Your task to perform on an android device: Go to privacy settings Image 0: 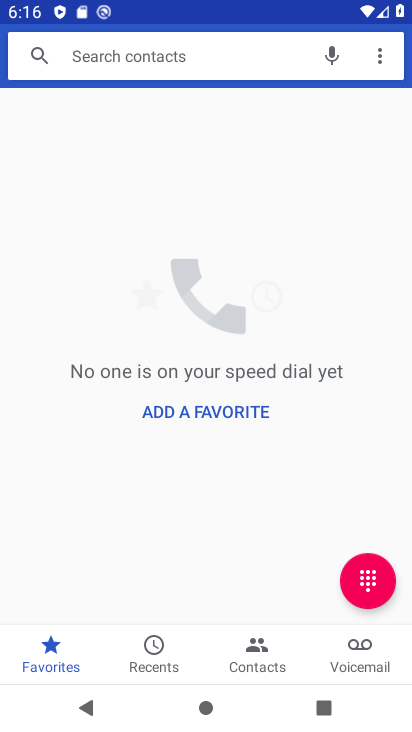
Step 0: press home button
Your task to perform on an android device: Go to privacy settings Image 1: 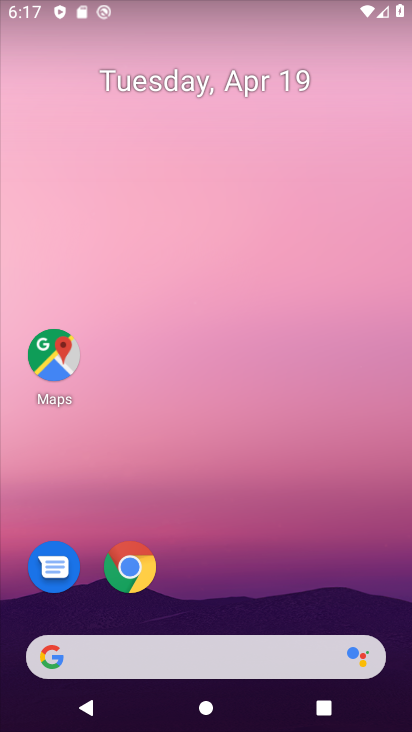
Step 1: drag from (262, 614) to (219, 46)
Your task to perform on an android device: Go to privacy settings Image 2: 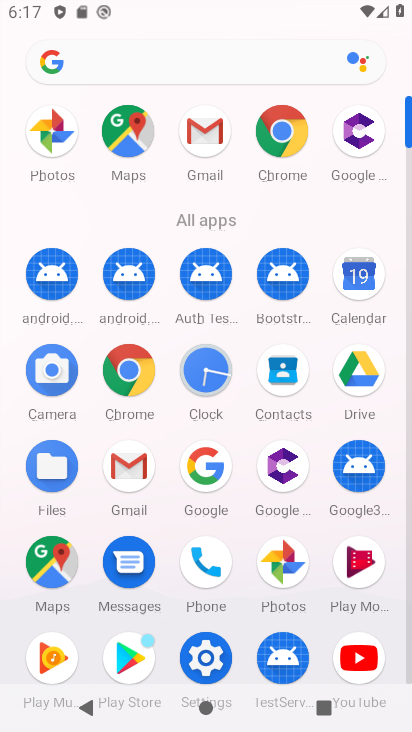
Step 2: click (208, 656)
Your task to perform on an android device: Go to privacy settings Image 3: 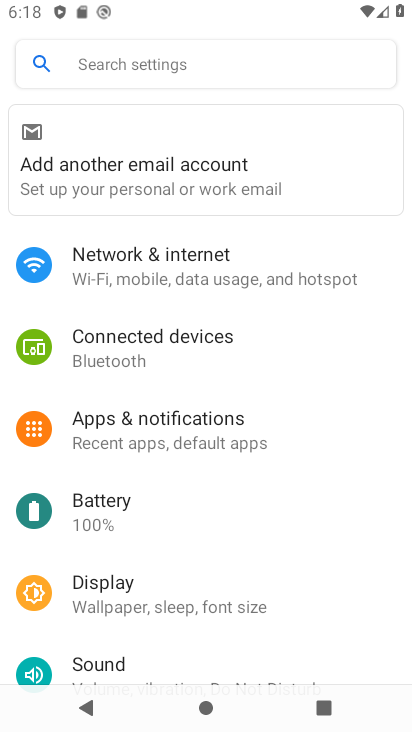
Step 3: drag from (214, 578) to (203, 407)
Your task to perform on an android device: Go to privacy settings Image 4: 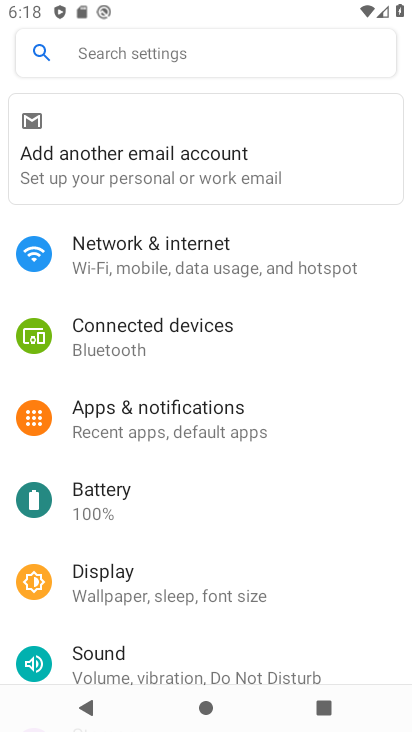
Step 4: drag from (280, 656) to (240, 370)
Your task to perform on an android device: Go to privacy settings Image 5: 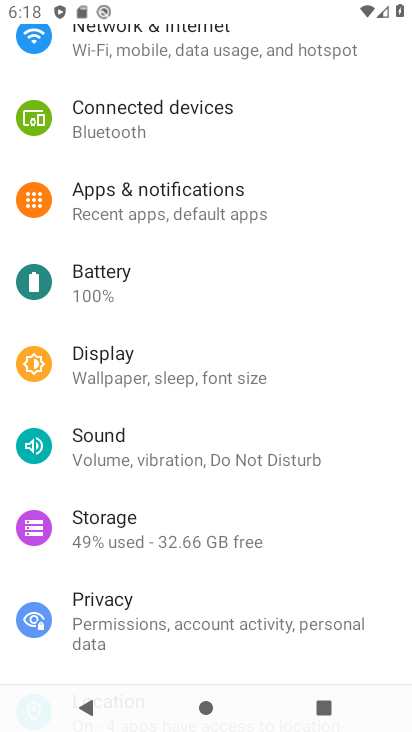
Step 5: click (121, 625)
Your task to perform on an android device: Go to privacy settings Image 6: 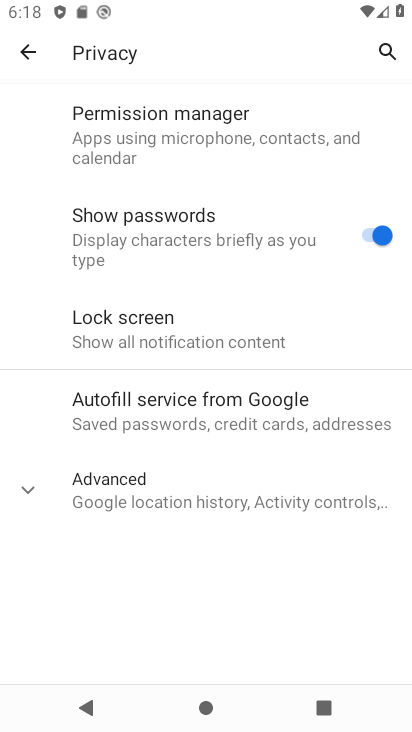
Step 6: task complete